Your task to perform on an android device: turn on wifi Image 0: 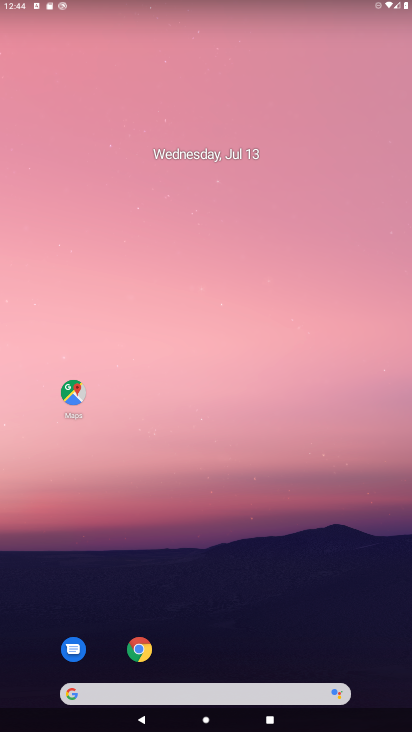
Step 0: drag from (358, 630) to (316, 51)
Your task to perform on an android device: turn on wifi Image 1: 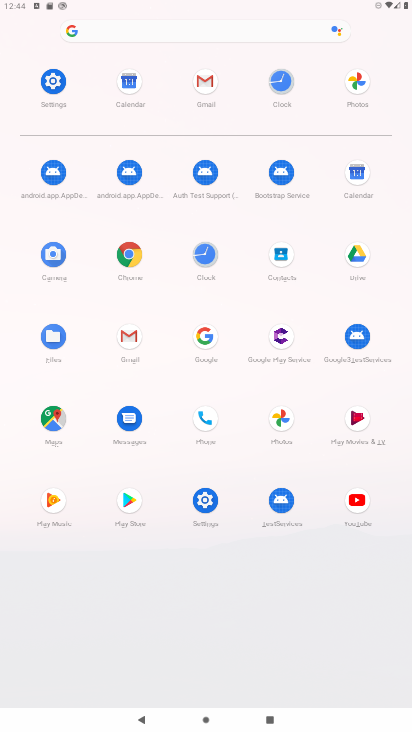
Step 1: click (201, 499)
Your task to perform on an android device: turn on wifi Image 2: 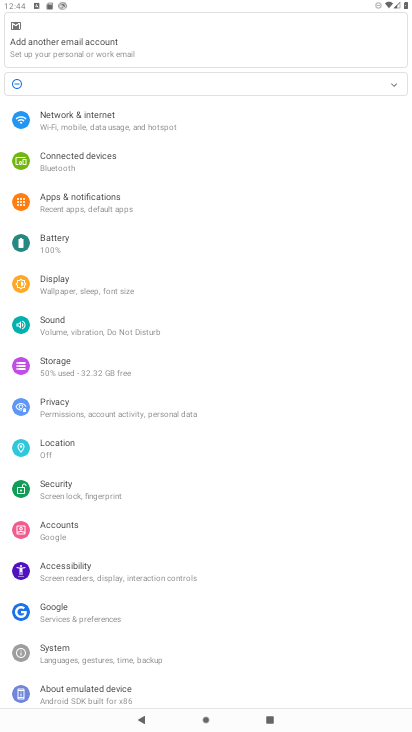
Step 2: click (60, 119)
Your task to perform on an android device: turn on wifi Image 3: 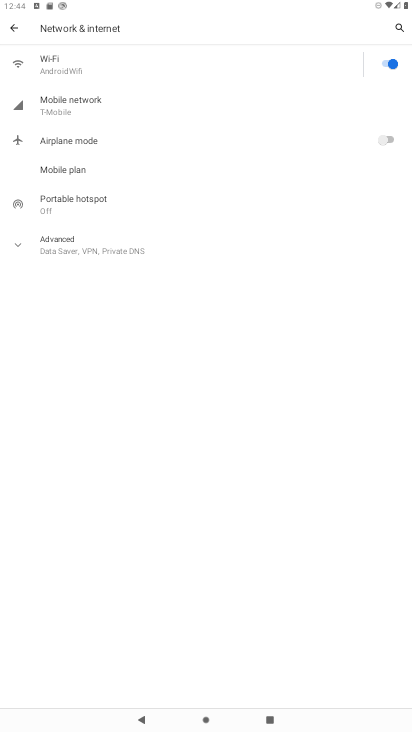
Step 3: task complete